Your task to perform on an android device: When is my next meeting? Image 0: 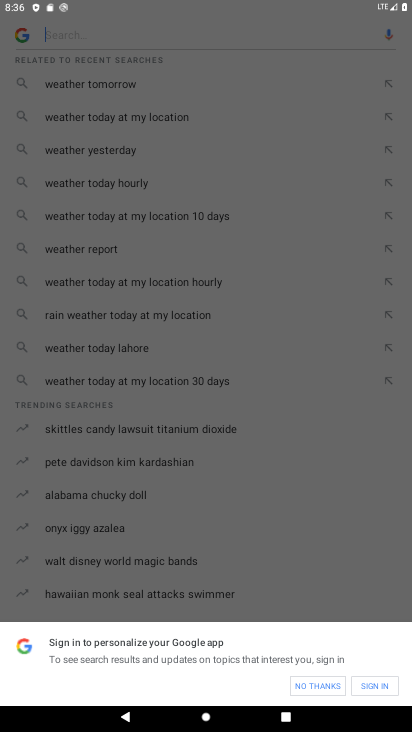
Step 0: press back button
Your task to perform on an android device: When is my next meeting? Image 1: 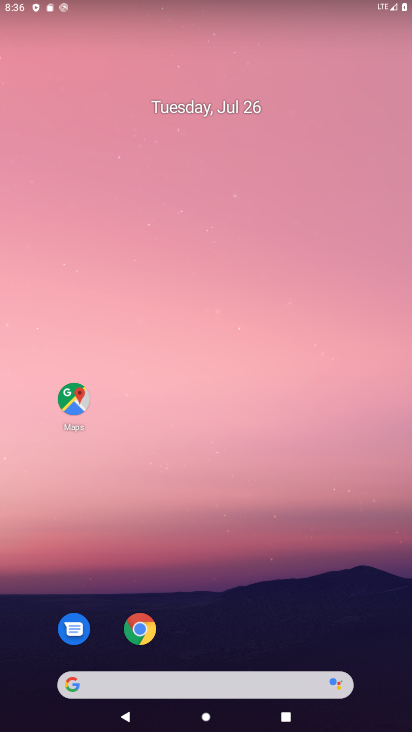
Step 1: drag from (214, 651) to (230, 63)
Your task to perform on an android device: When is my next meeting? Image 2: 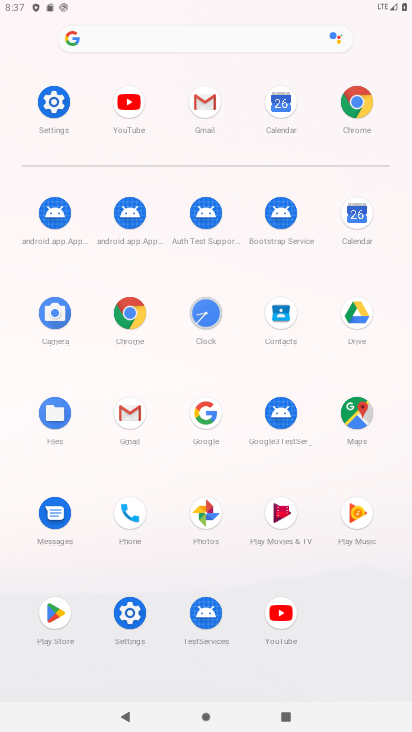
Step 2: click (357, 223)
Your task to perform on an android device: When is my next meeting? Image 3: 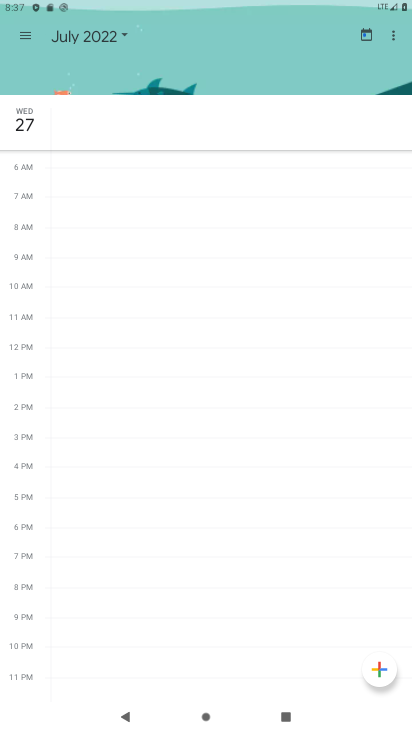
Step 3: click (357, 38)
Your task to perform on an android device: When is my next meeting? Image 4: 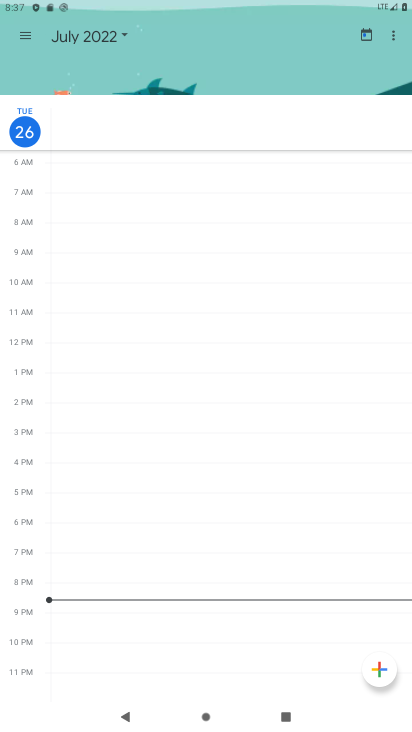
Step 4: click (23, 29)
Your task to perform on an android device: When is my next meeting? Image 5: 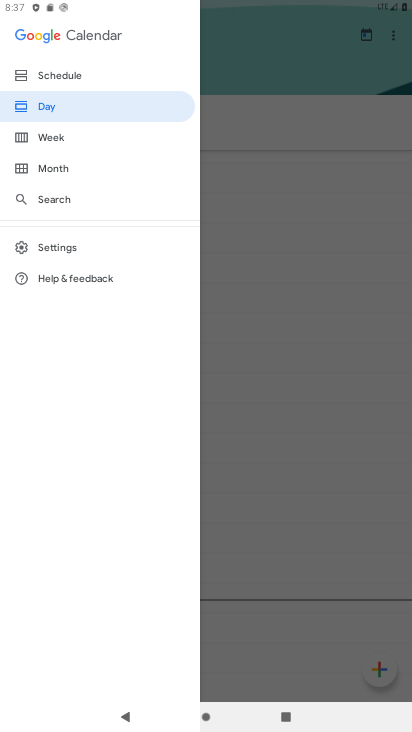
Step 5: click (46, 134)
Your task to perform on an android device: When is my next meeting? Image 6: 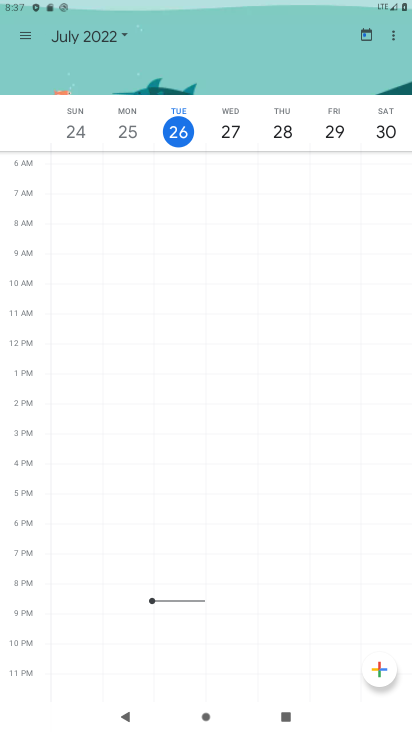
Step 6: task complete